Your task to perform on an android device: check battery use Image 0: 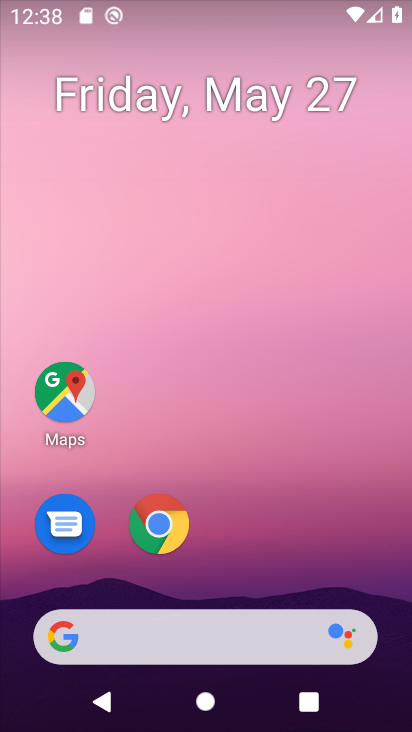
Step 0: drag from (236, 529) to (245, 49)
Your task to perform on an android device: check battery use Image 1: 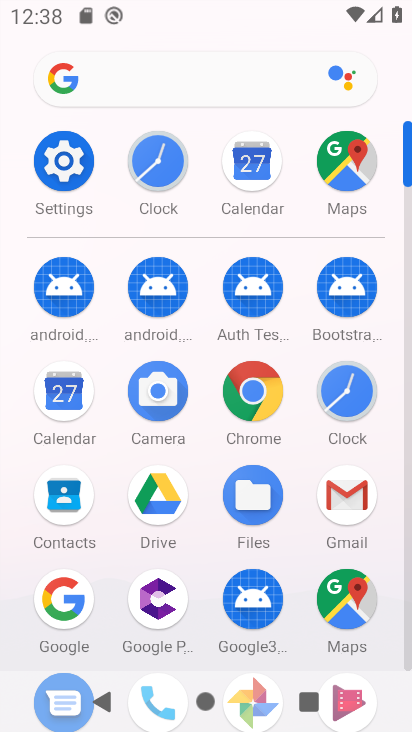
Step 1: click (63, 159)
Your task to perform on an android device: check battery use Image 2: 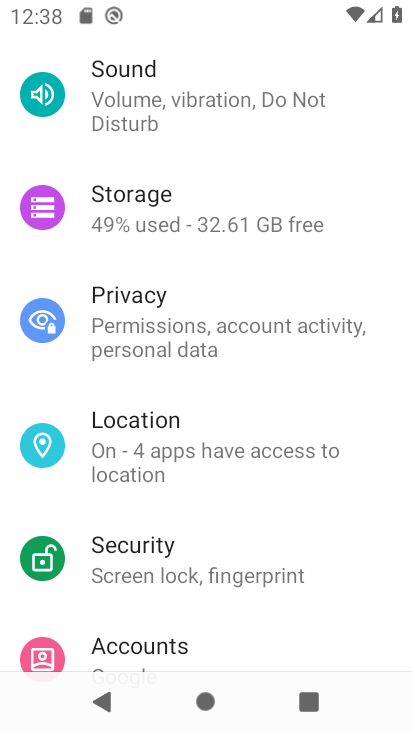
Step 2: drag from (203, 171) to (229, 617)
Your task to perform on an android device: check battery use Image 3: 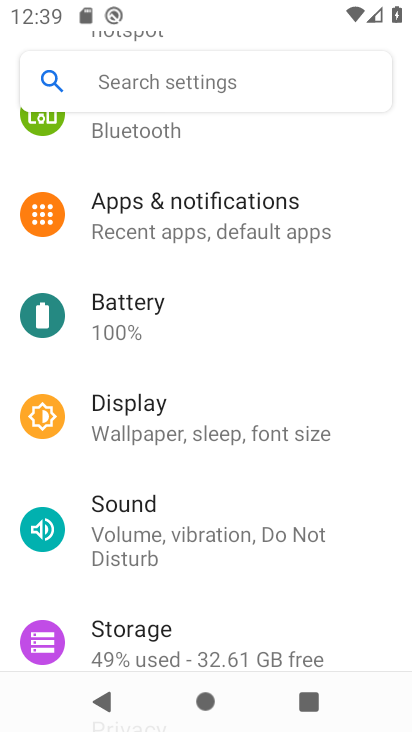
Step 3: click (223, 319)
Your task to perform on an android device: check battery use Image 4: 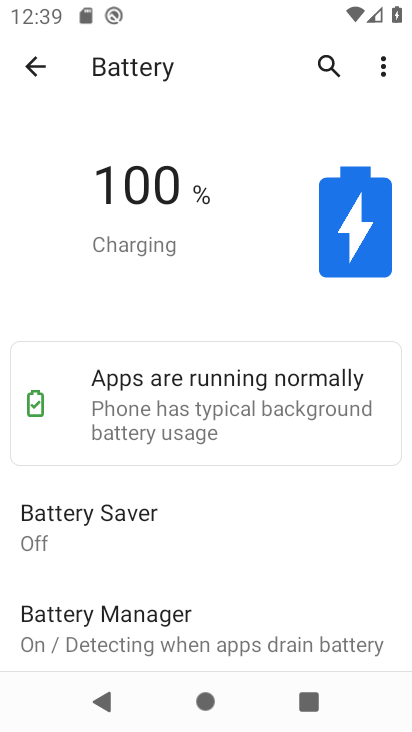
Step 4: task complete